Your task to perform on an android device: open the mobile data screen to see how much data has been used Image 0: 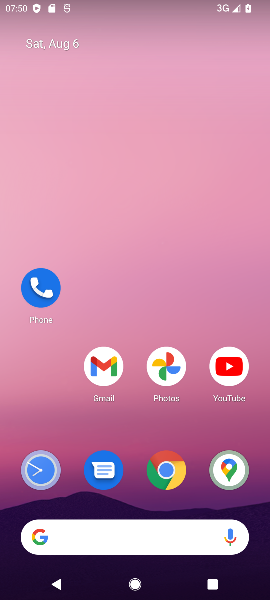
Step 0: drag from (159, 10) to (182, 424)
Your task to perform on an android device: open the mobile data screen to see how much data has been used Image 1: 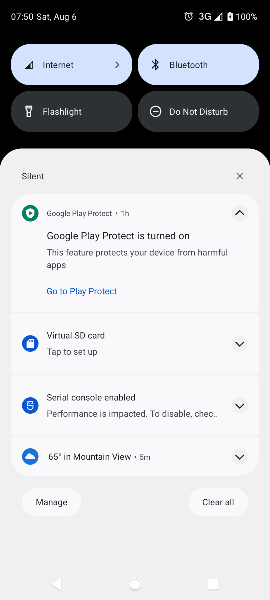
Step 1: click (68, 64)
Your task to perform on an android device: open the mobile data screen to see how much data has been used Image 2: 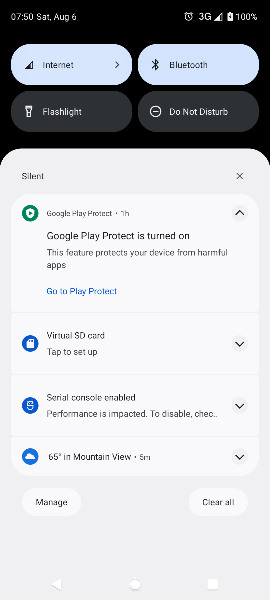
Step 2: click (68, 64)
Your task to perform on an android device: open the mobile data screen to see how much data has been used Image 3: 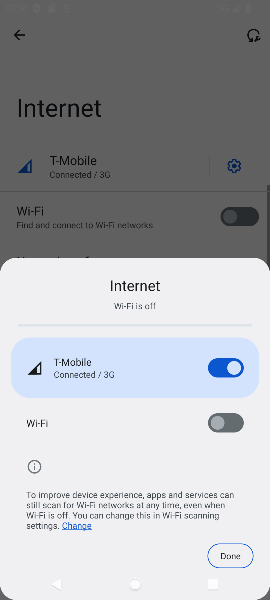
Step 3: task complete